Your task to perform on an android device: refresh tabs in the chrome app Image 0: 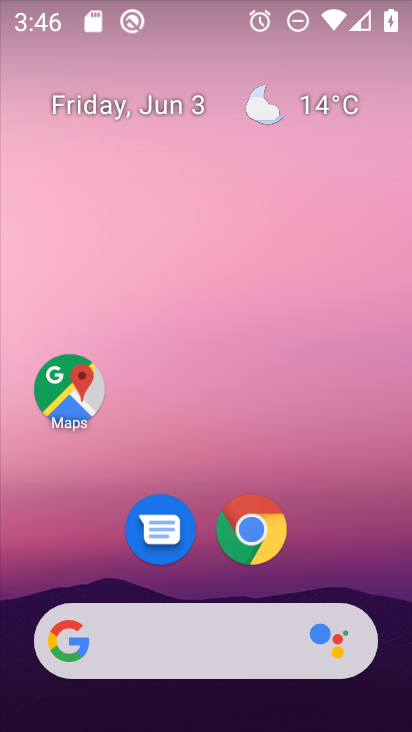
Step 0: drag from (374, 576) to (361, 94)
Your task to perform on an android device: refresh tabs in the chrome app Image 1: 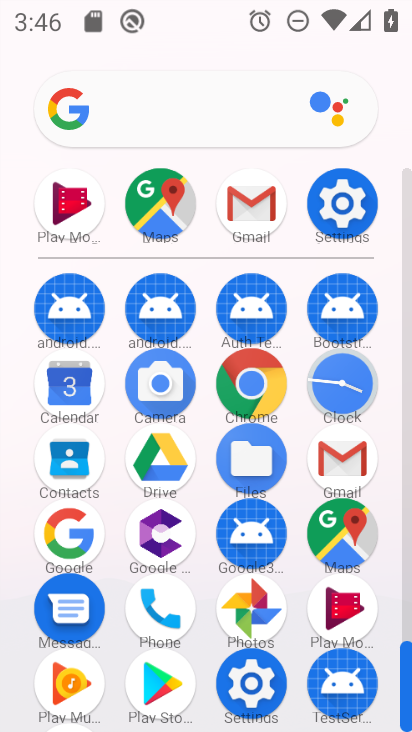
Step 1: click (259, 394)
Your task to perform on an android device: refresh tabs in the chrome app Image 2: 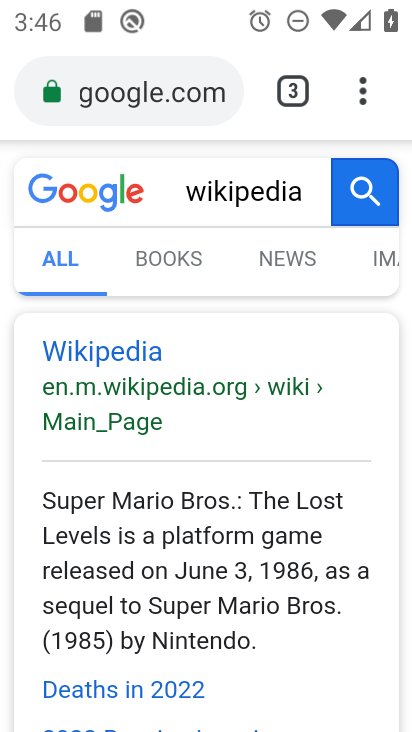
Step 2: click (362, 103)
Your task to perform on an android device: refresh tabs in the chrome app Image 3: 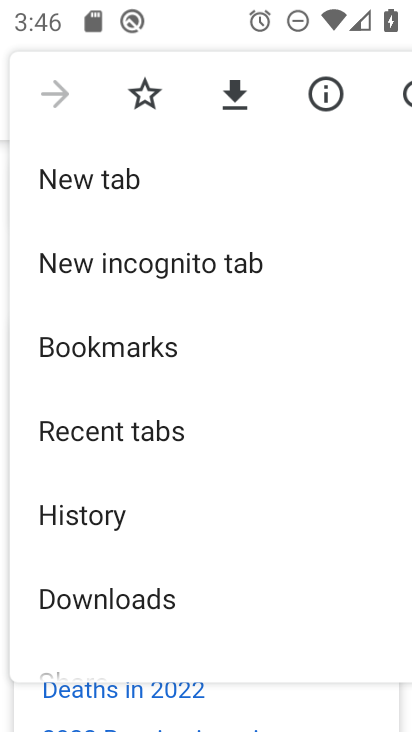
Step 3: drag from (258, 501) to (273, 299)
Your task to perform on an android device: refresh tabs in the chrome app Image 4: 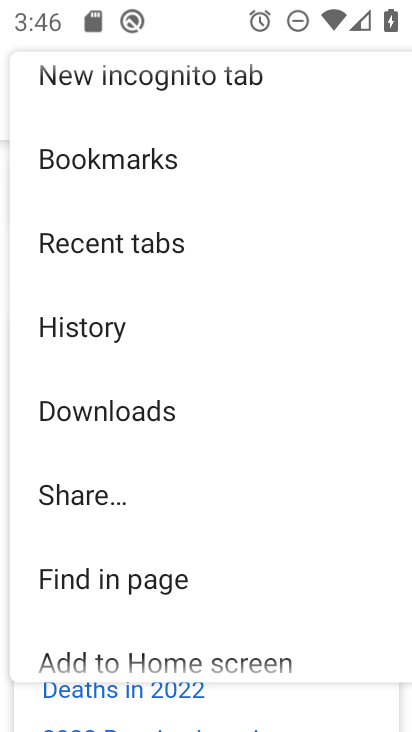
Step 4: drag from (277, 508) to (277, 303)
Your task to perform on an android device: refresh tabs in the chrome app Image 5: 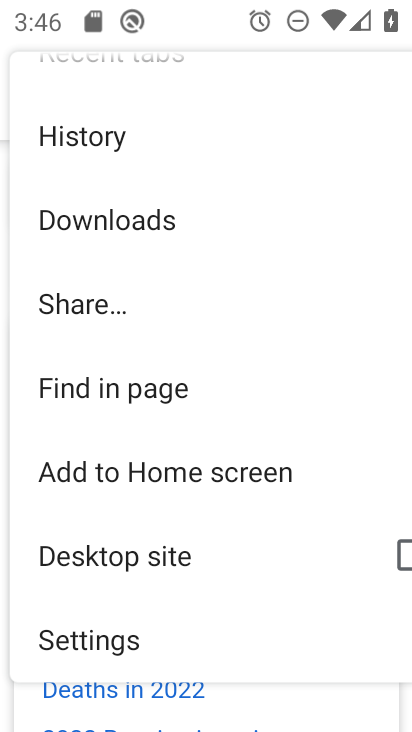
Step 5: drag from (307, 570) to (313, 316)
Your task to perform on an android device: refresh tabs in the chrome app Image 6: 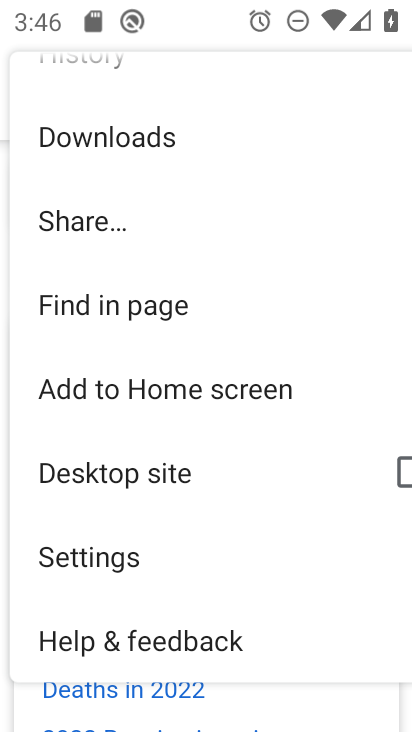
Step 6: drag from (331, 249) to (324, 540)
Your task to perform on an android device: refresh tabs in the chrome app Image 7: 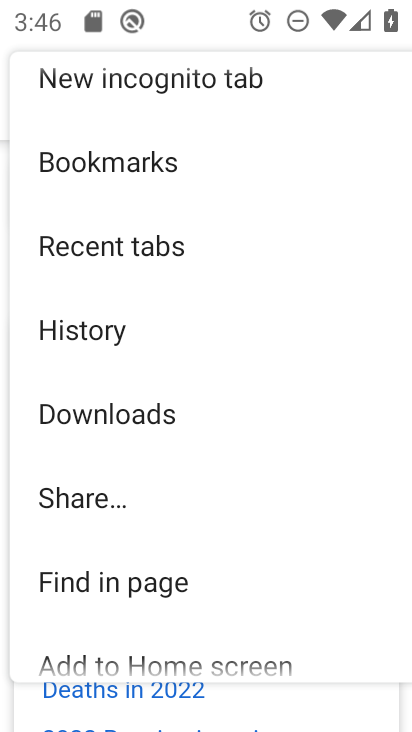
Step 7: drag from (320, 253) to (315, 529)
Your task to perform on an android device: refresh tabs in the chrome app Image 8: 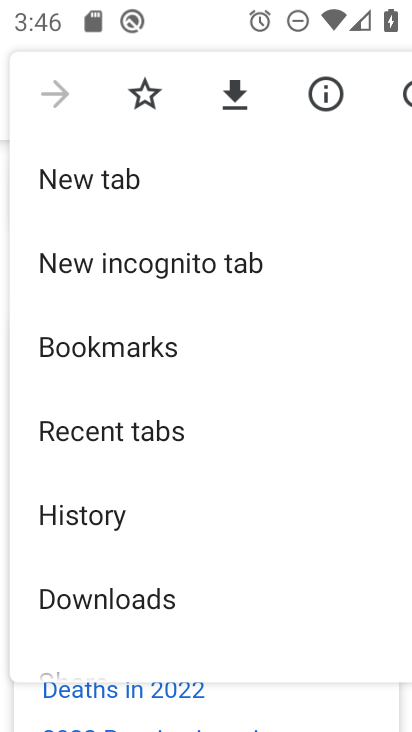
Step 8: click (401, 96)
Your task to perform on an android device: refresh tabs in the chrome app Image 9: 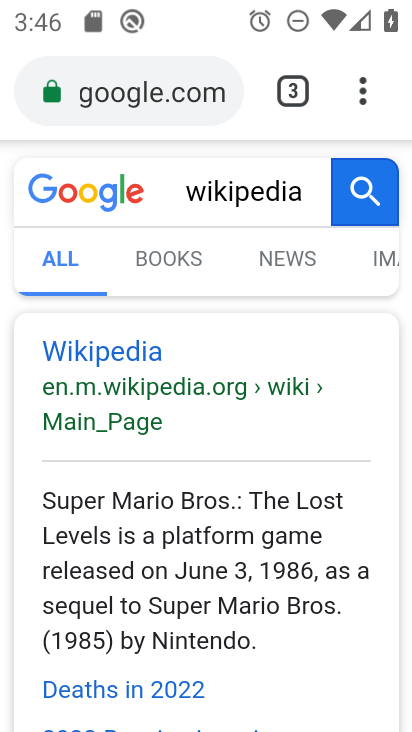
Step 9: task complete